Your task to perform on an android device: turn on notifications settings in the gmail app Image 0: 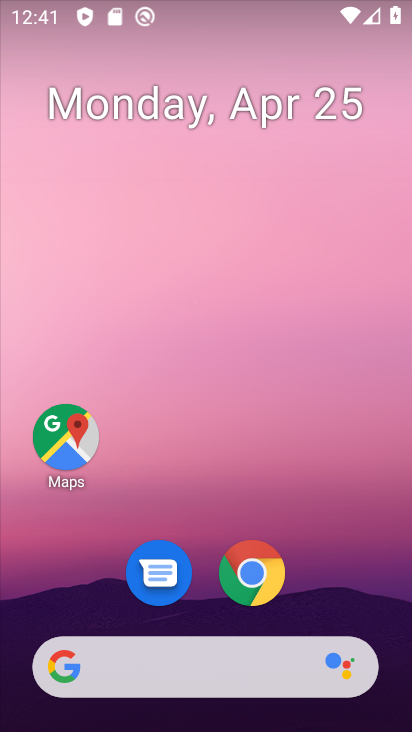
Step 0: drag from (200, 547) to (222, 141)
Your task to perform on an android device: turn on notifications settings in the gmail app Image 1: 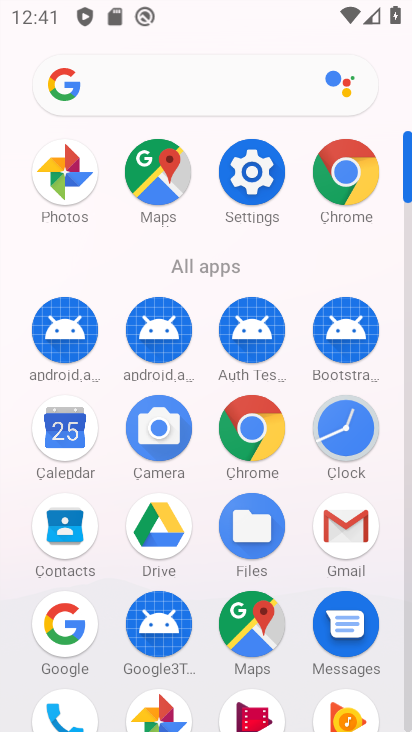
Step 1: click (353, 533)
Your task to perform on an android device: turn on notifications settings in the gmail app Image 2: 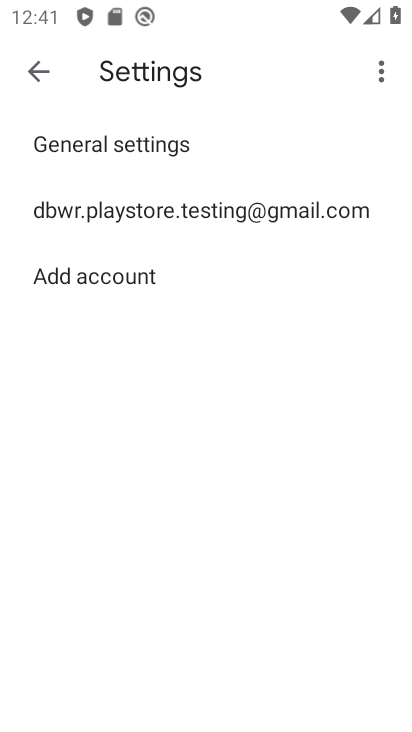
Step 2: click (138, 160)
Your task to perform on an android device: turn on notifications settings in the gmail app Image 3: 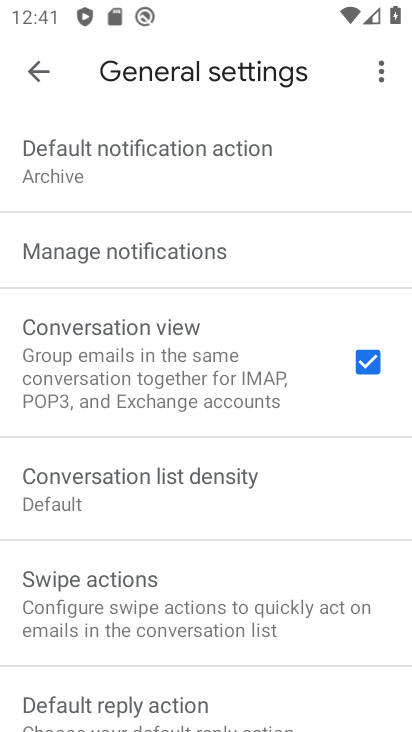
Step 3: click (121, 251)
Your task to perform on an android device: turn on notifications settings in the gmail app Image 4: 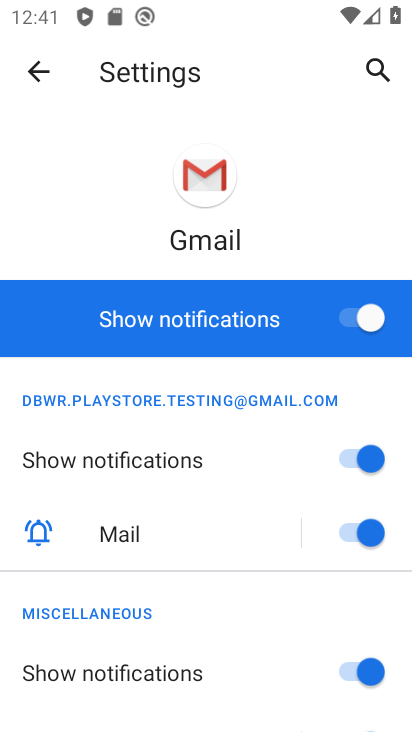
Step 4: task complete